Your task to perform on an android device: Check the news Image 0: 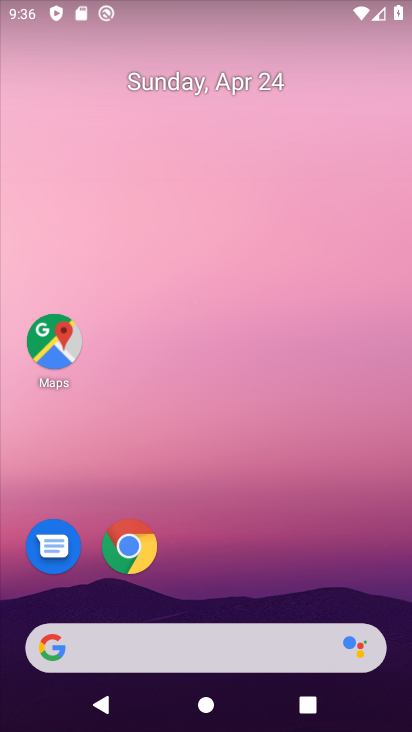
Step 0: drag from (285, 560) to (355, 135)
Your task to perform on an android device: Check the news Image 1: 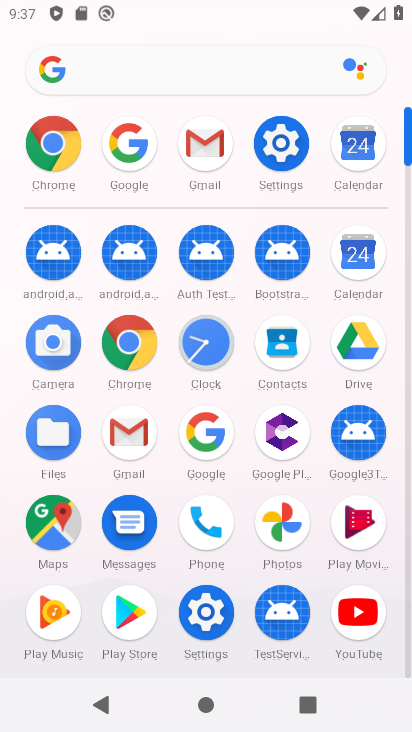
Step 1: click (142, 136)
Your task to perform on an android device: Check the news Image 2: 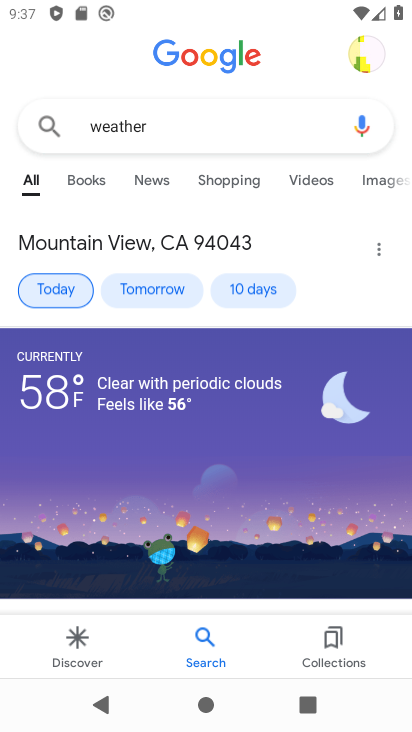
Step 2: click (222, 120)
Your task to perform on an android device: Check the news Image 3: 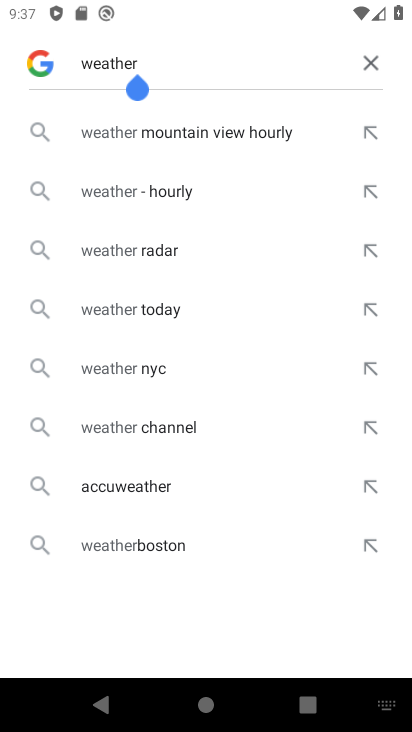
Step 3: click (365, 64)
Your task to perform on an android device: Check the news Image 4: 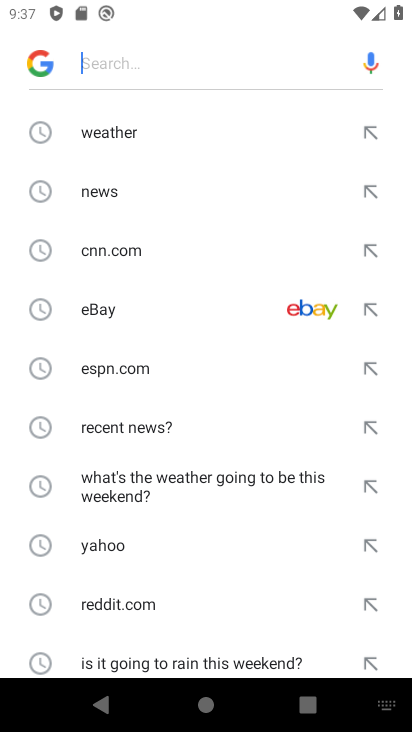
Step 4: click (161, 200)
Your task to perform on an android device: Check the news Image 5: 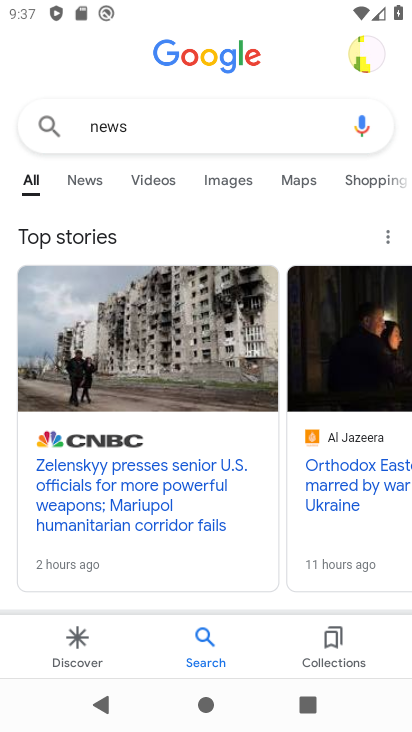
Step 5: task complete